Your task to perform on an android device: Open my contact list Image 0: 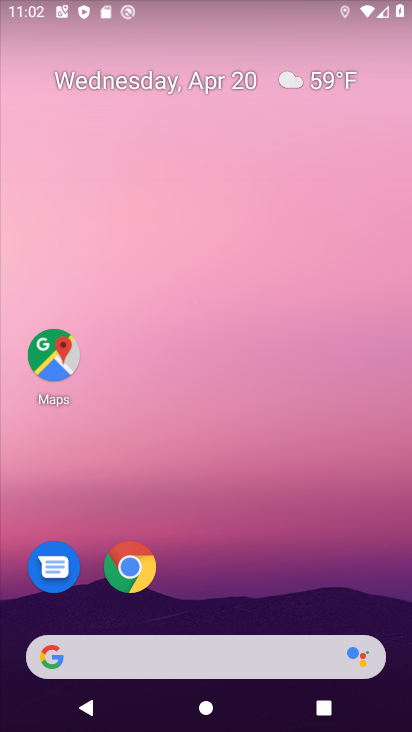
Step 0: drag from (260, 580) to (248, 77)
Your task to perform on an android device: Open my contact list Image 1: 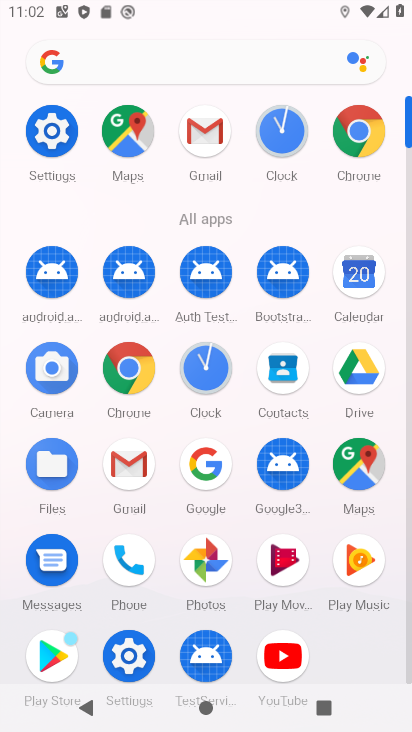
Step 1: click (280, 368)
Your task to perform on an android device: Open my contact list Image 2: 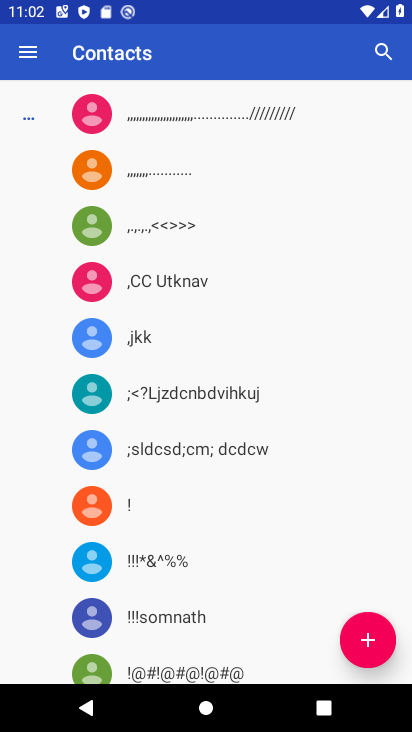
Step 2: task complete